Your task to perform on an android device: Open Chrome and go to the settings page Image 0: 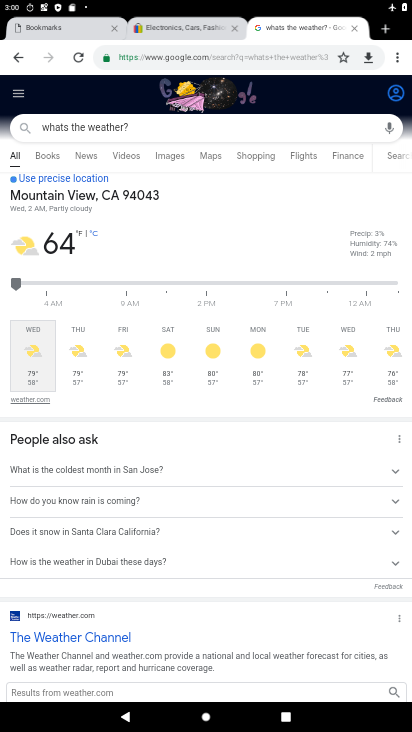
Step 0: drag from (391, 53) to (289, 359)
Your task to perform on an android device: Open Chrome and go to the settings page Image 1: 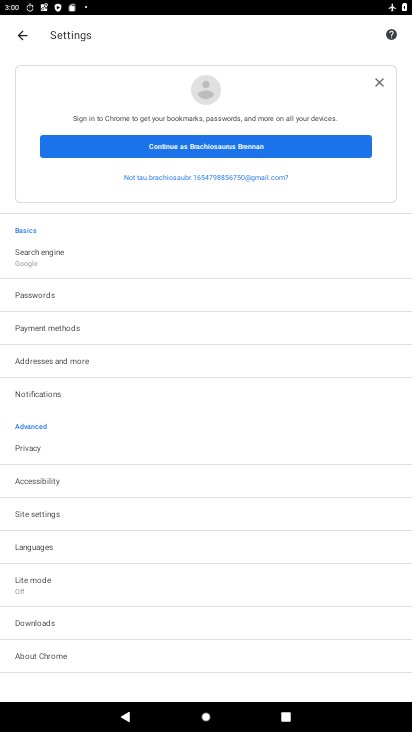
Step 1: task complete